Your task to perform on an android device: Check the news Image 0: 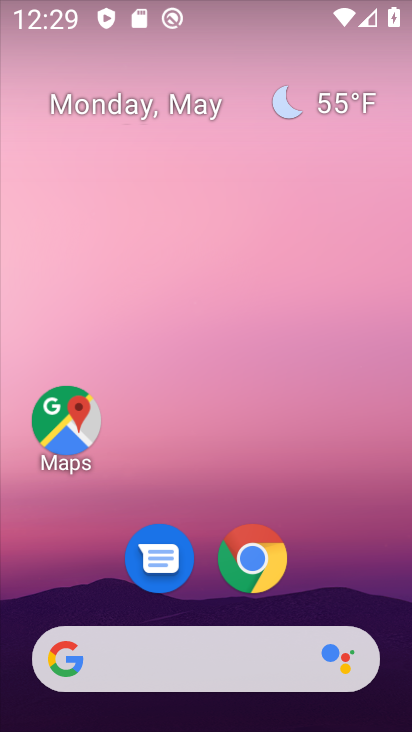
Step 0: drag from (337, 504) to (223, 34)
Your task to perform on an android device: Check the news Image 1: 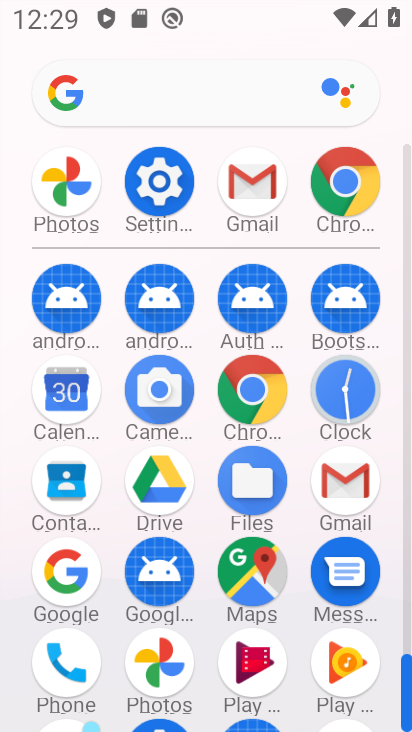
Step 1: drag from (15, 547) to (9, 226)
Your task to perform on an android device: Check the news Image 2: 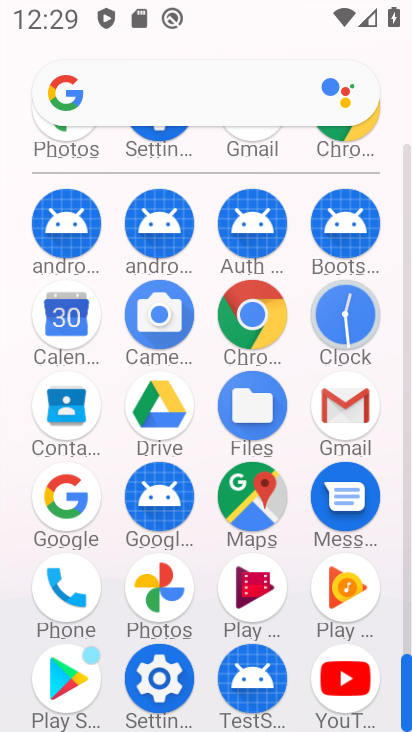
Step 2: click (248, 314)
Your task to perform on an android device: Check the news Image 3: 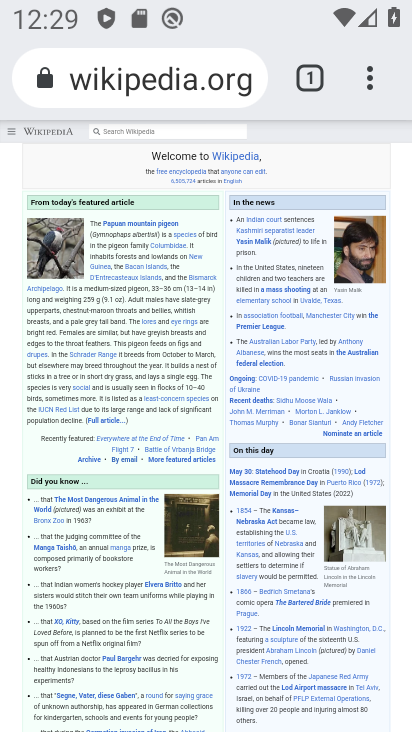
Step 3: click (212, 73)
Your task to perform on an android device: Check the news Image 4: 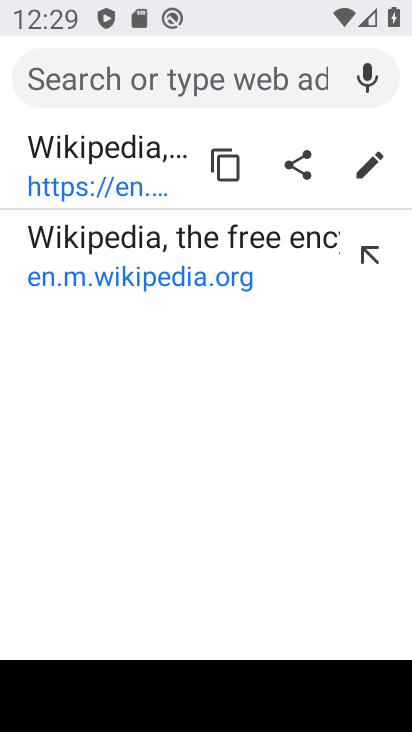
Step 4: type "Check the news"
Your task to perform on an android device: Check the news Image 5: 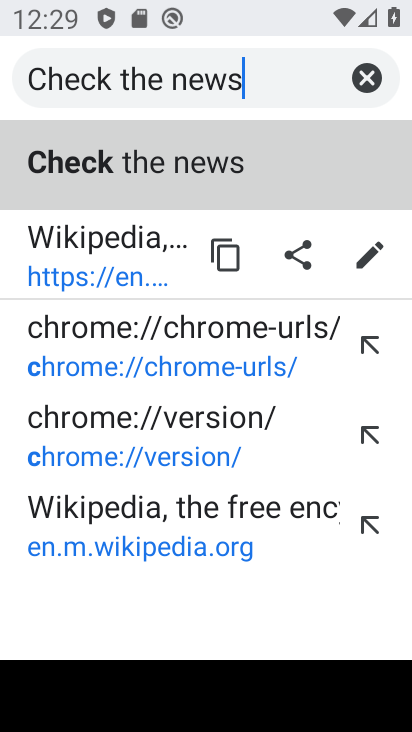
Step 5: type ""
Your task to perform on an android device: Check the news Image 6: 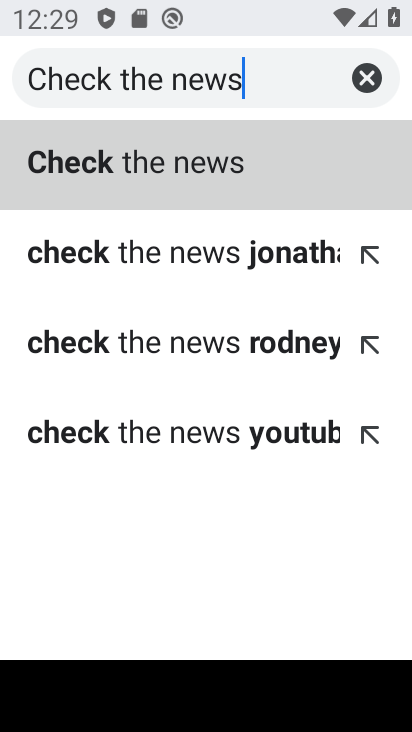
Step 6: click (158, 175)
Your task to perform on an android device: Check the news Image 7: 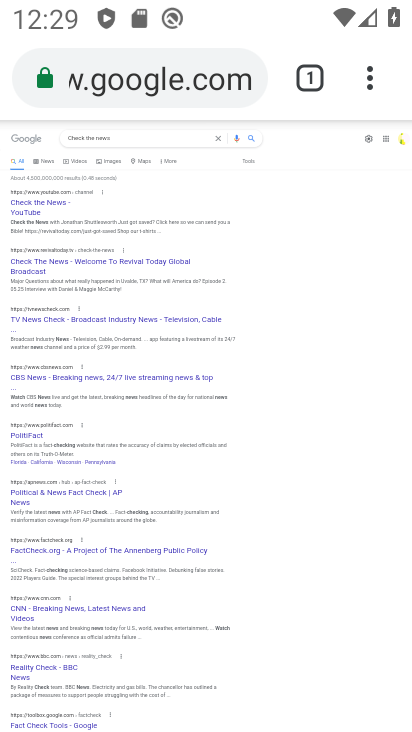
Step 7: click (50, 165)
Your task to perform on an android device: Check the news Image 8: 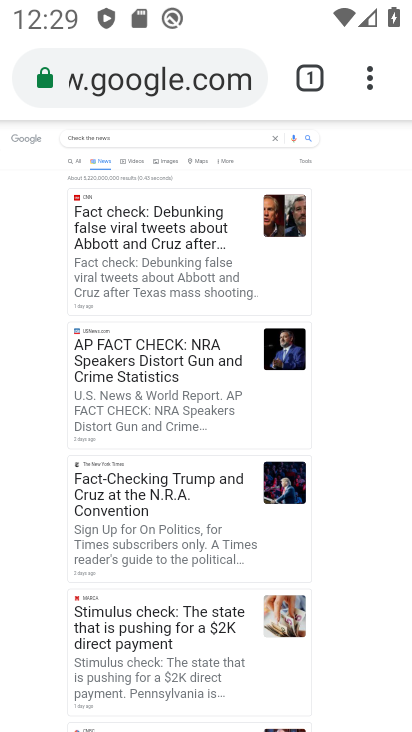
Step 8: task complete